Your task to perform on an android device: turn on translation in the chrome app Image 0: 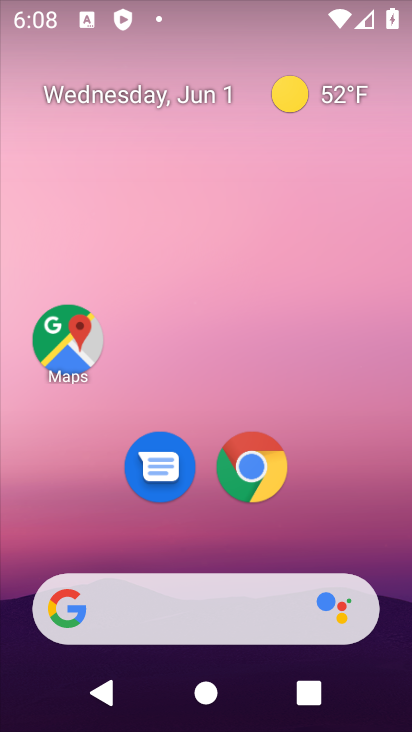
Step 0: click (247, 470)
Your task to perform on an android device: turn on translation in the chrome app Image 1: 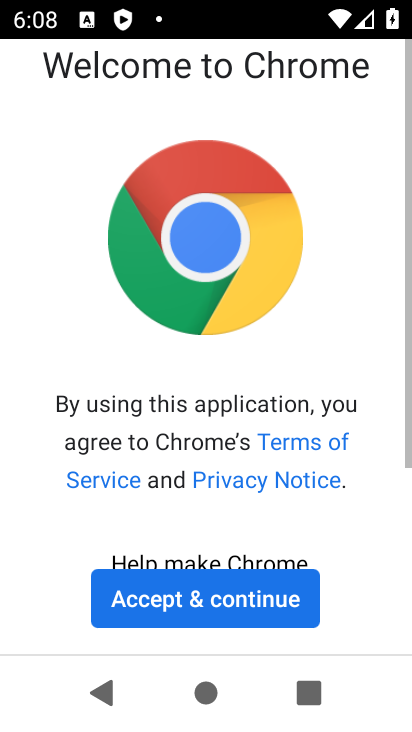
Step 1: click (221, 585)
Your task to perform on an android device: turn on translation in the chrome app Image 2: 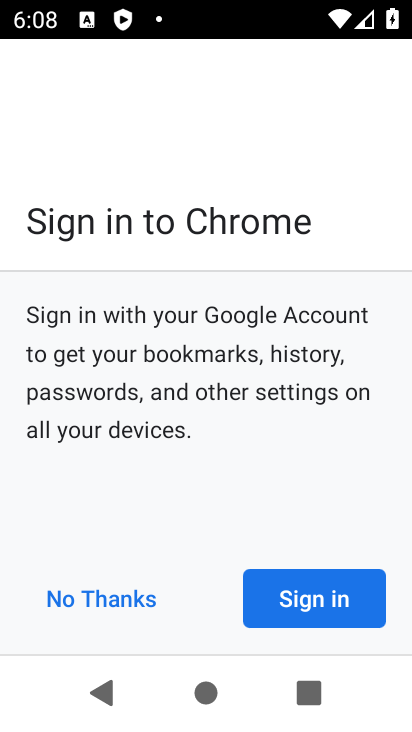
Step 2: click (363, 603)
Your task to perform on an android device: turn on translation in the chrome app Image 3: 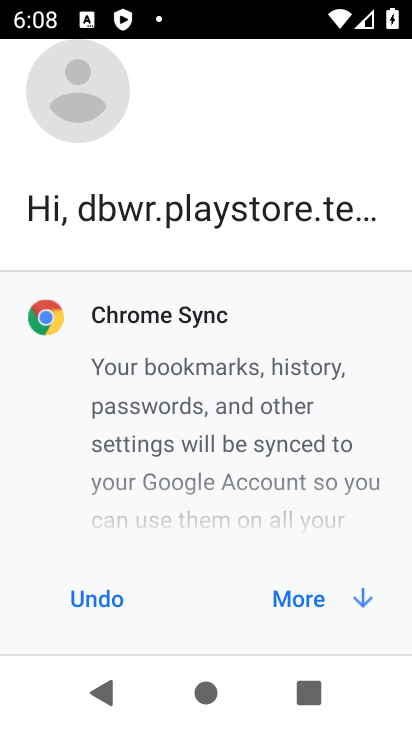
Step 3: click (362, 602)
Your task to perform on an android device: turn on translation in the chrome app Image 4: 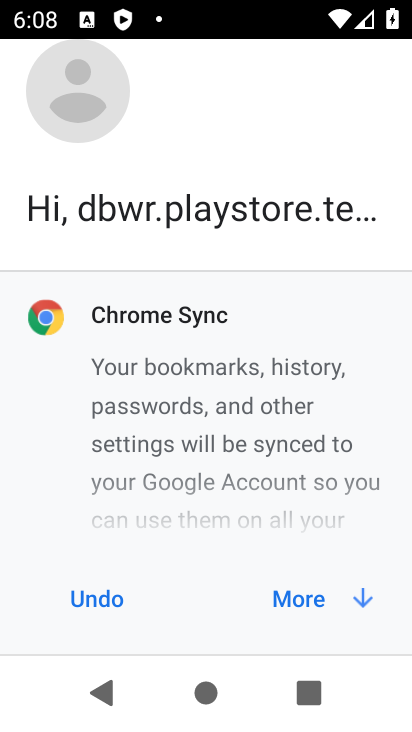
Step 4: click (362, 602)
Your task to perform on an android device: turn on translation in the chrome app Image 5: 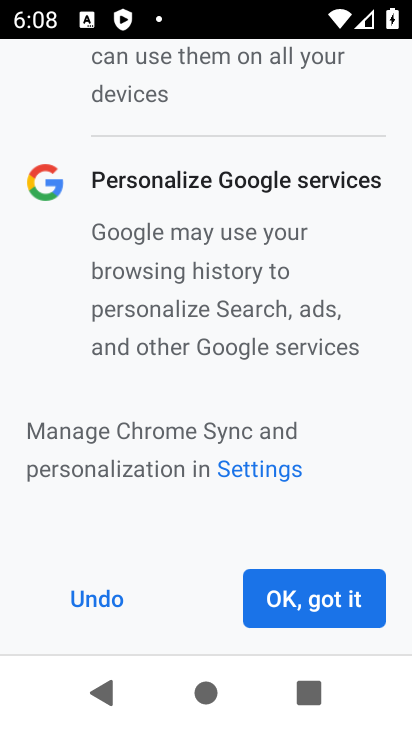
Step 5: click (342, 590)
Your task to perform on an android device: turn on translation in the chrome app Image 6: 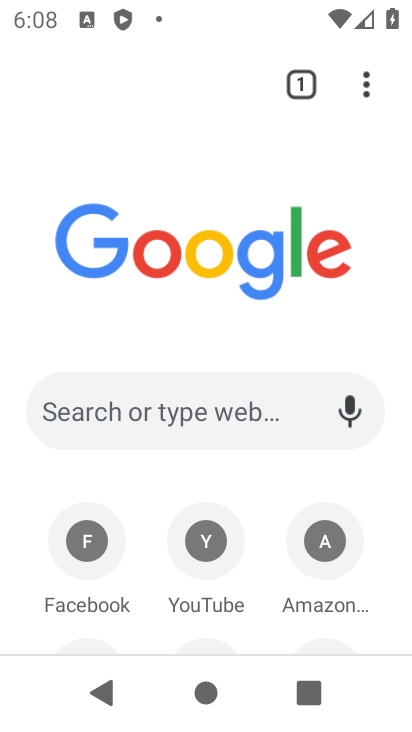
Step 6: click (363, 77)
Your task to perform on an android device: turn on translation in the chrome app Image 7: 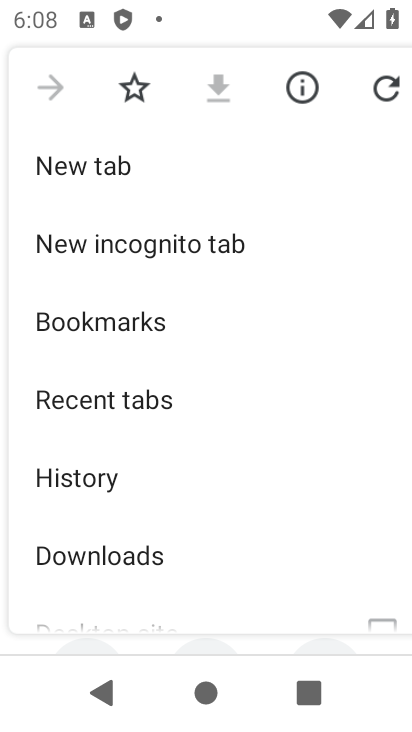
Step 7: drag from (247, 477) to (233, 150)
Your task to perform on an android device: turn on translation in the chrome app Image 8: 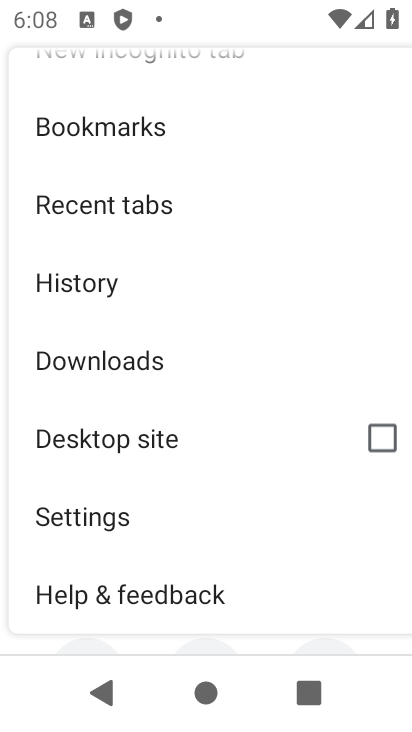
Step 8: click (146, 519)
Your task to perform on an android device: turn on translation in the chrome app Image 9: 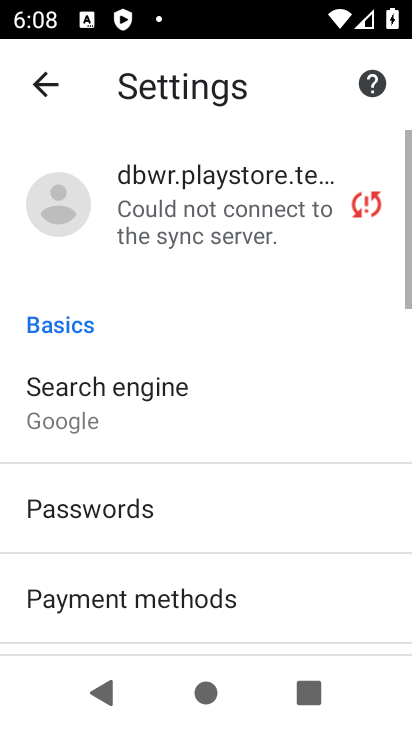
Step 9: drag from (220, 505) to (228, 31)
Your task to perform on an android device: turn on translation in the chrome app Image 10: 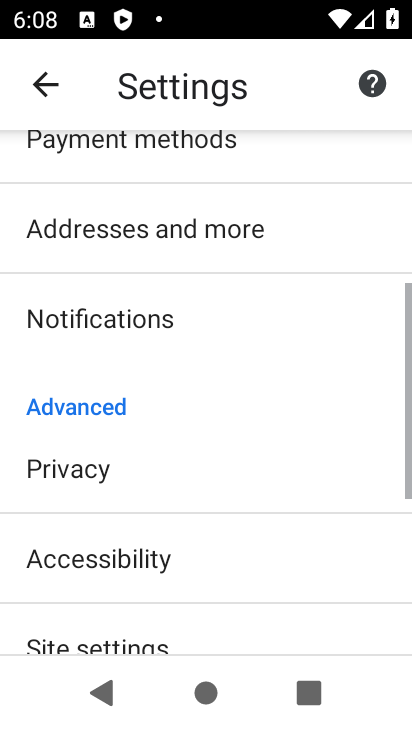
Step 10: drag from (212, 552) to (208, 95)
Your task to perform on an android device: turn on translation in the chrome app Image 11: 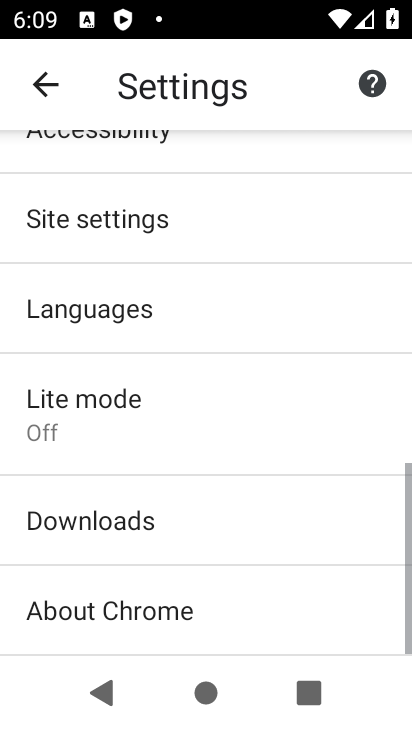
Step 11: drag from (164, 424) to (166, 317)
Your task to perform on an android device: turn on translation in the chrome app Image 12: 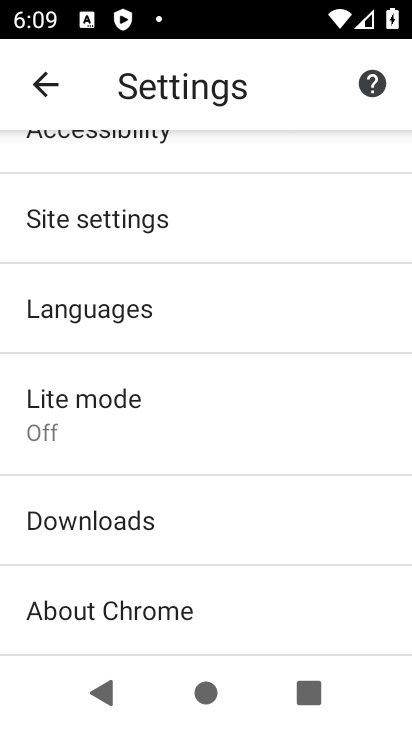
Step 12: click (190, 282)
Your task to perform on an android device: turn on translation in the chrome app Image 13: 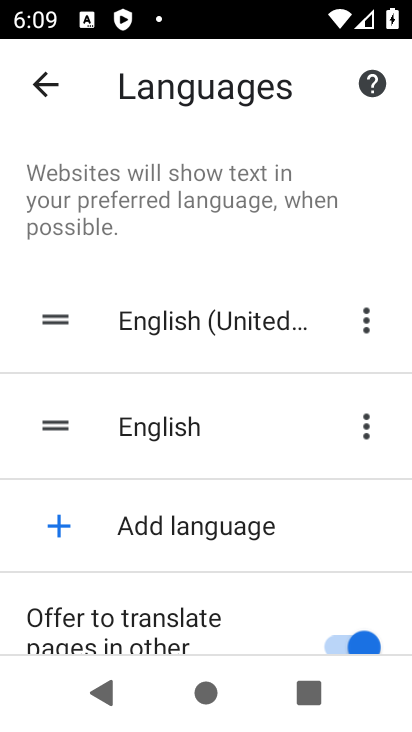
Step 13: task complete